Your task to perform on an android device: visit the assistant section in the google photos Image 0: 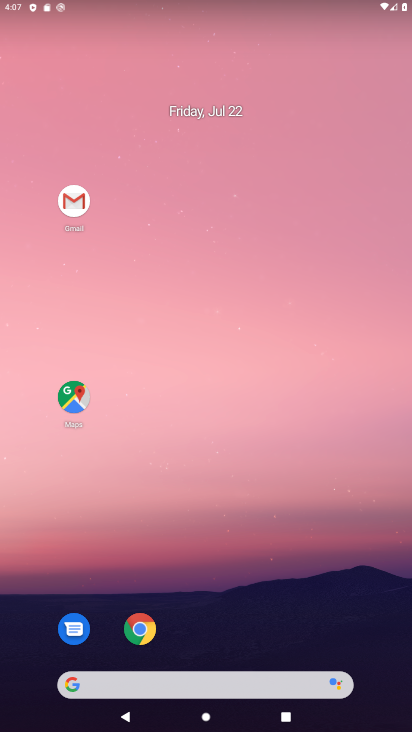
Step 0: drag from (233, 586) to (214, 69)
Your task to perform on an android device: visit the assistant section in the google photos Image 1: 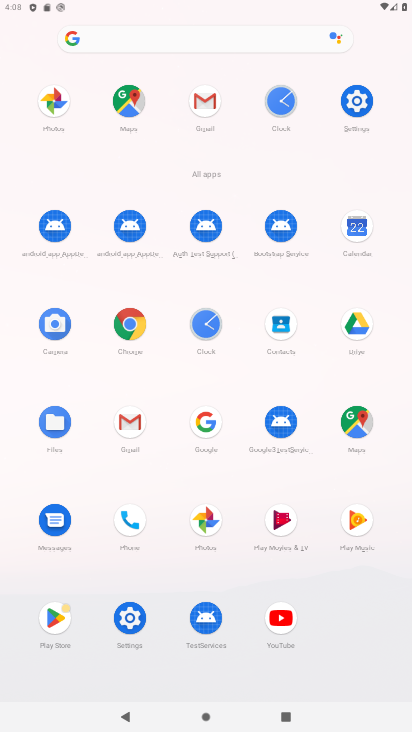
Step 1: drag from (191, 527) to (178, 191)
Your task to perform on an android device: visit the assistant section in the google photos Image 2: 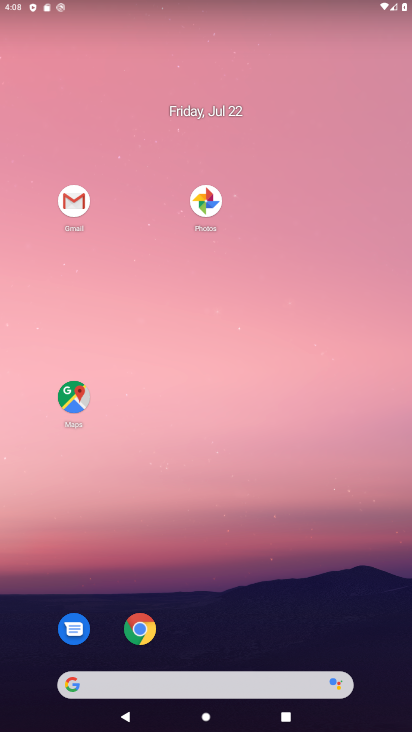
Step 2: click (214, 210)
Your task to perform on an android device: visit the assistant section in the google photos Image 3: 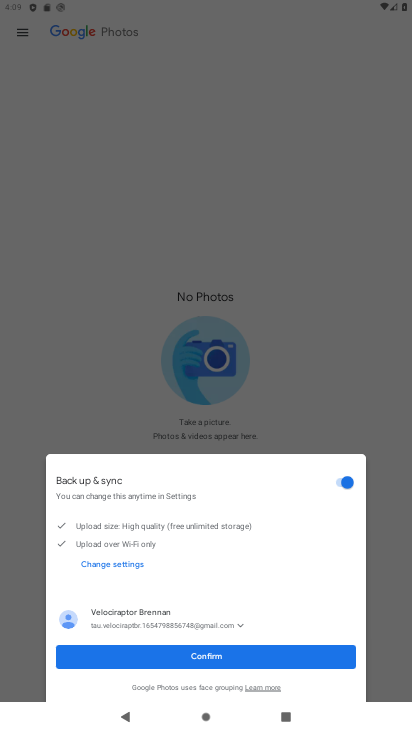
Step 3: press back button
Your task to perform on an android device: visit the assistant section in the google photos Image 4: 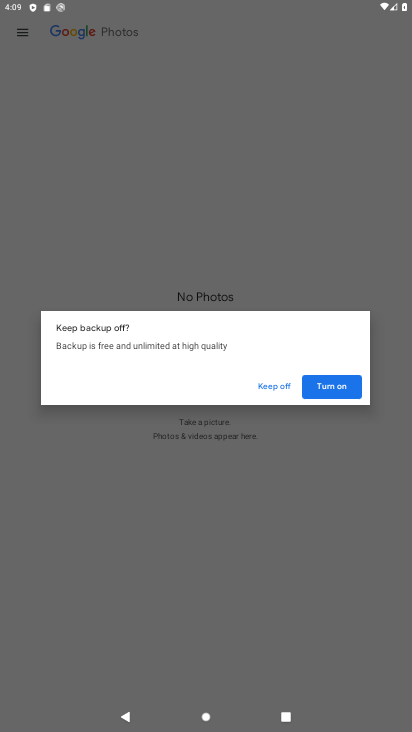
Step 4: press back button
Your task to perform on an android device: visit the assistant section in the google photos Image 5: 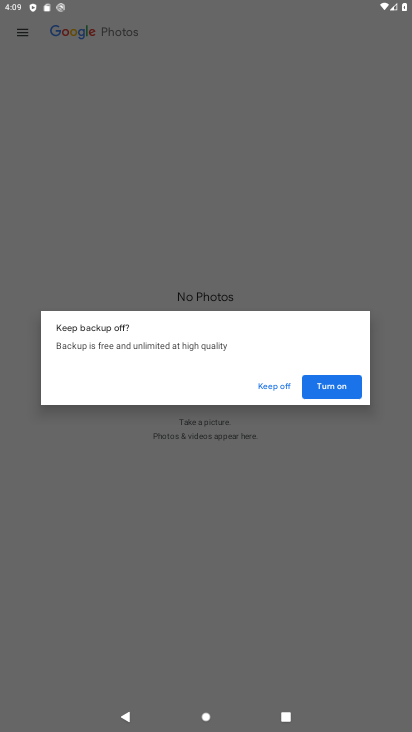
Step 5: press back button
Your task to perform on an android device: visit the assistant section in the google photos Image 6: 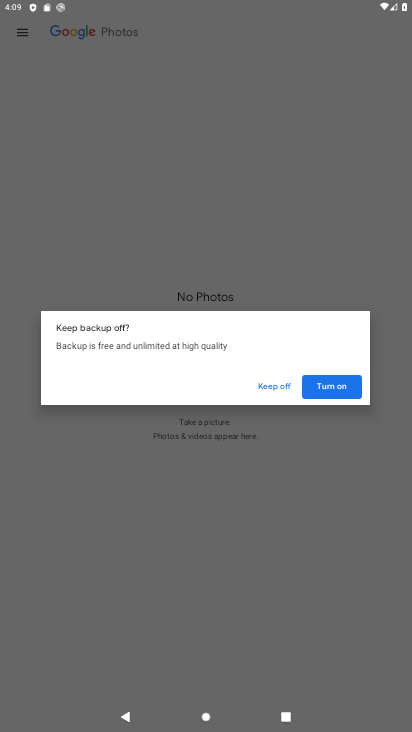
Step 6: press home button
Your task to perform on an android device: visit the assistant section in the google photos Image 7: 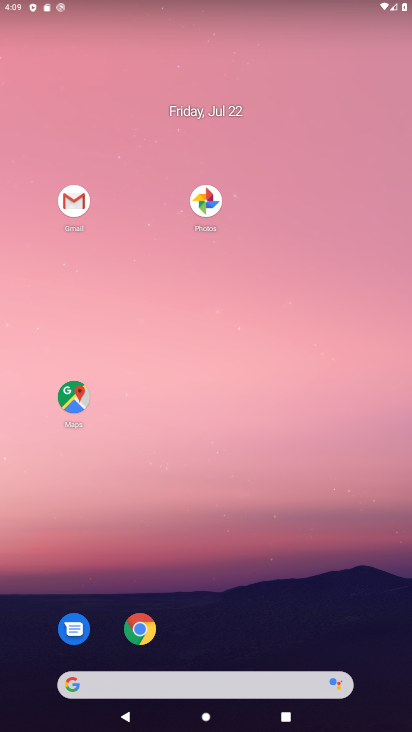
Step 7: drag from (269, 574) to (266, 63)
Your task to perform on an android device: visit the assistant section in the google photos Image 8: 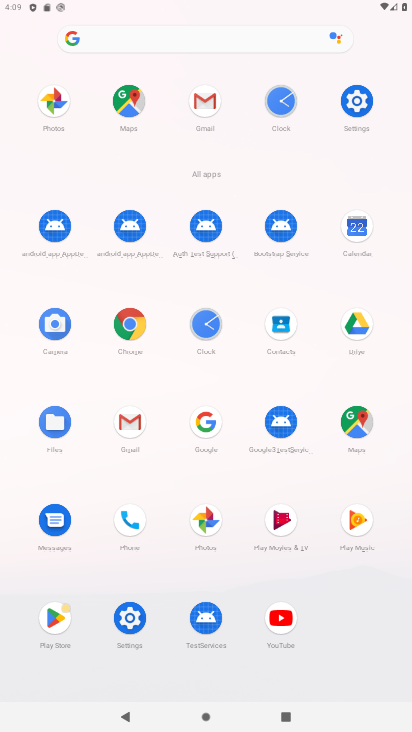
Step 8: drag from (206, 510) to (189, 315)
Your task to perform on an android device: visit the assistant section in the google photos Image 9: 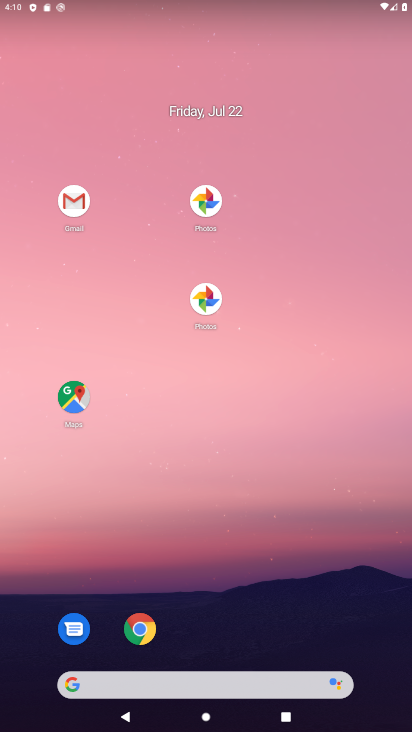
Step 9: click (218, 287)
Your task to perform on an android device: visit the assistant section in the google photos Image 10: 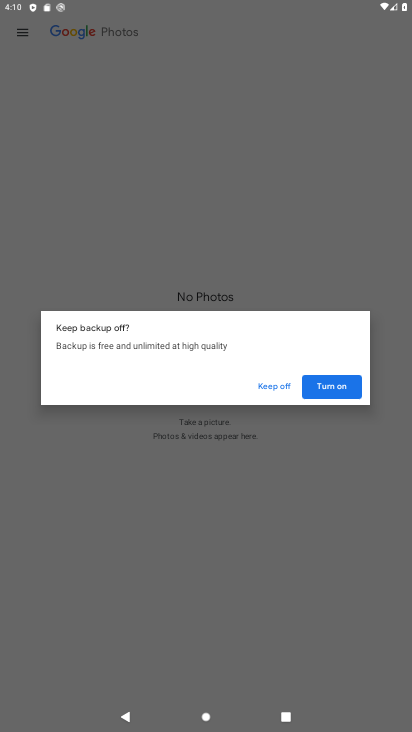
Step 10: click (310, 385)
Your task to perform on an android device: visit the assistant section in the google photos Image 11: 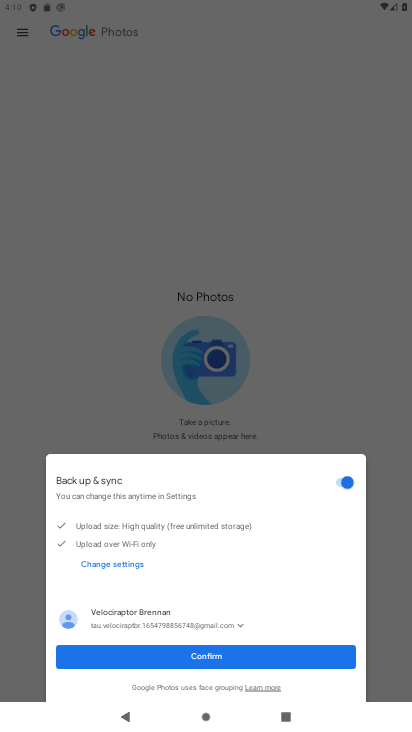
Step 11: click (265, 660)
Your task to perform on an android device: visit the assistant section in the google photos Image 12: 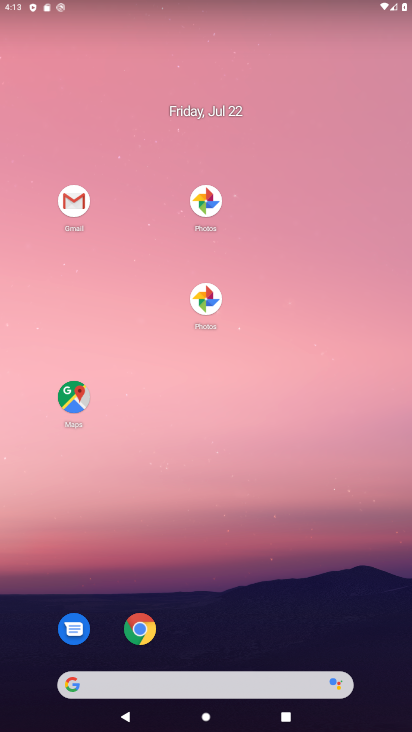
Step 12: click (210, 295)
Your task to perform on an android device: visit the assistant section in the google photos Image 13: 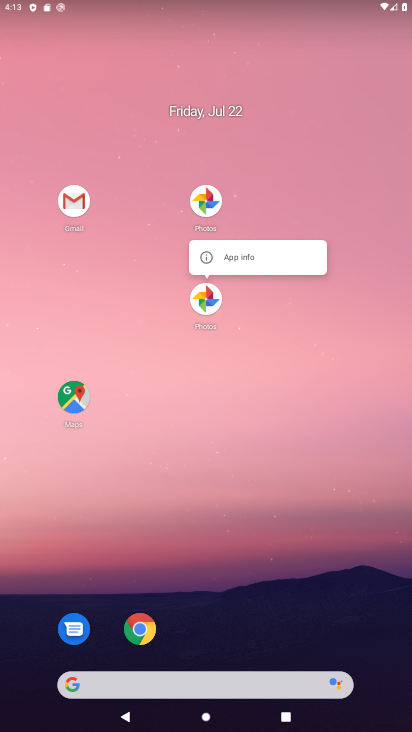
Step 13: task complete